Your task to perform on an android device: Open calendar and show me the second week of next month Image 0: 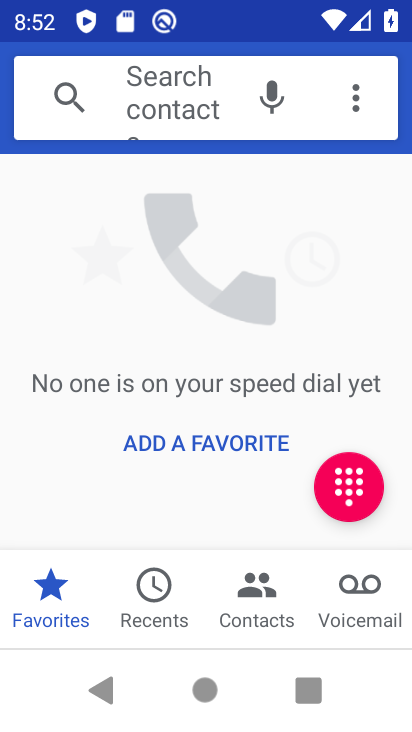
Step 0: press home button
Your task to perform on an android device: Open calendar and show me the second week of next month Image 1: 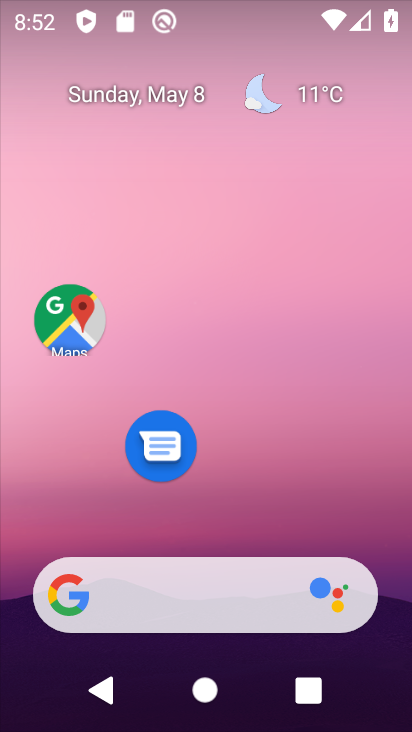
Step 1: drag from (330, 525) to (240, 6)
Your task to perform on an android device: Open calendar and show me the second week of next month Image 2: 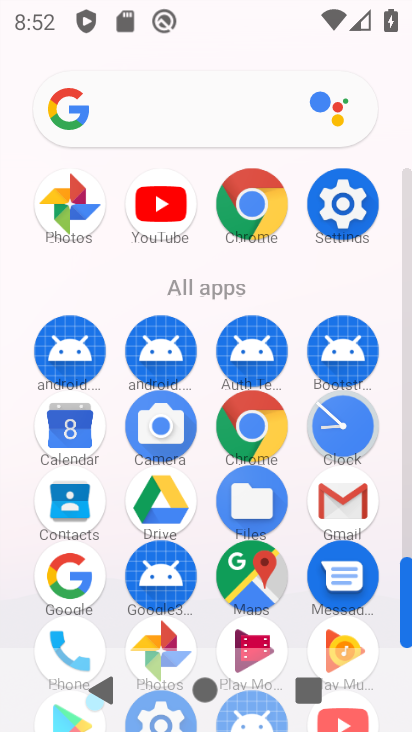
Step 2: click (75, 436)
Your task to perform on an android device: Open calendar and show me the second week of next month Image 3: 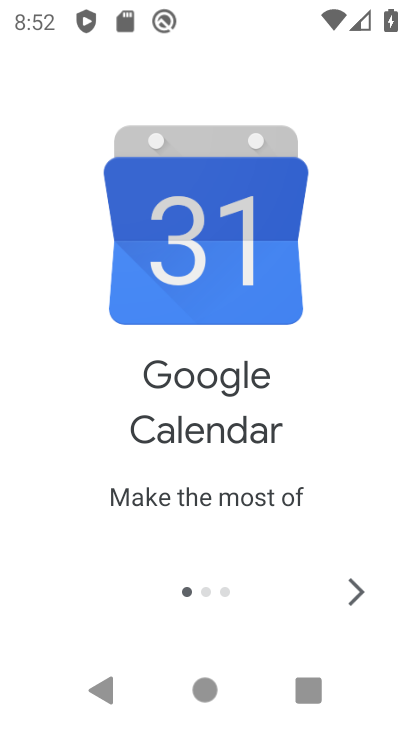
Step 3: click (365, 595)
Your task to perform on an android device: Open calendar and show me the second week of next month Image 4: 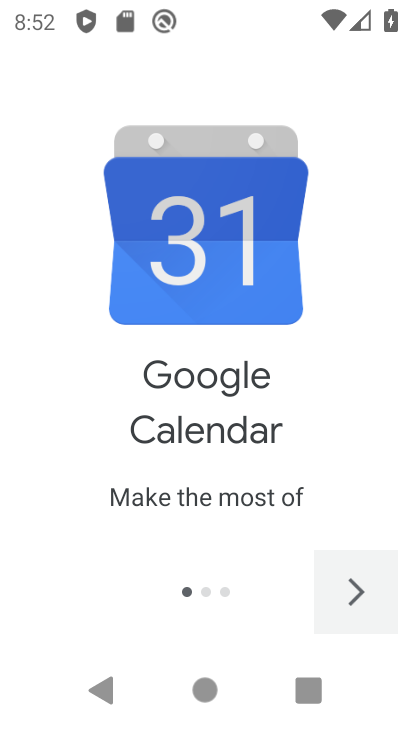
Step 4: click (361, 595)
Your task to perform on an android device: Open calendar and show me the second week of next month Image 5: 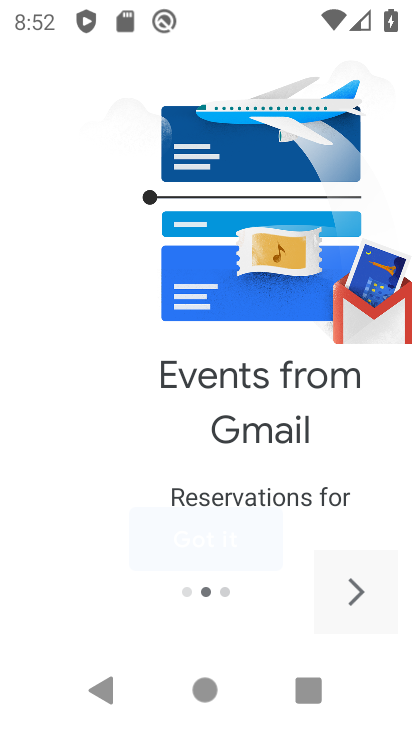
Step 5: click (361, 595)
Your task to perform on an android device: Open calendar and show me the second week of next month Image 6: 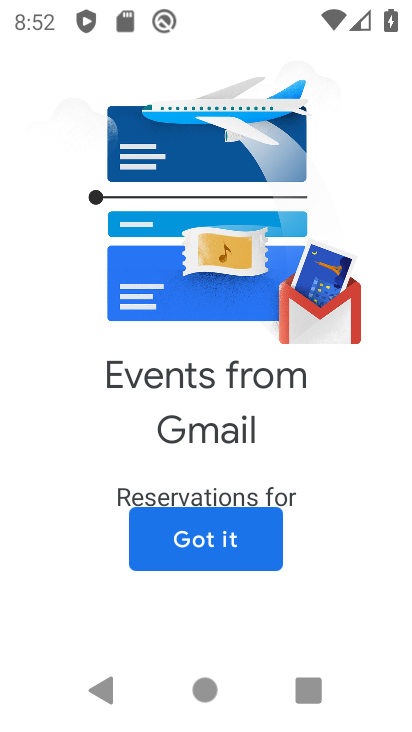
Step 6: click (361, 595)
Your task to perform on an android device: Open calendar and show me the second week of next month Image 7: 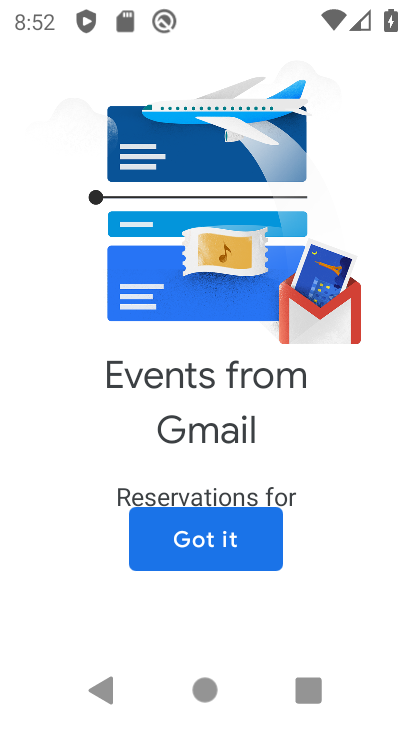
Step 7: click (229, 544)
Your task to perform on an android device: Open calendar and show me the second week of next month Image 8: 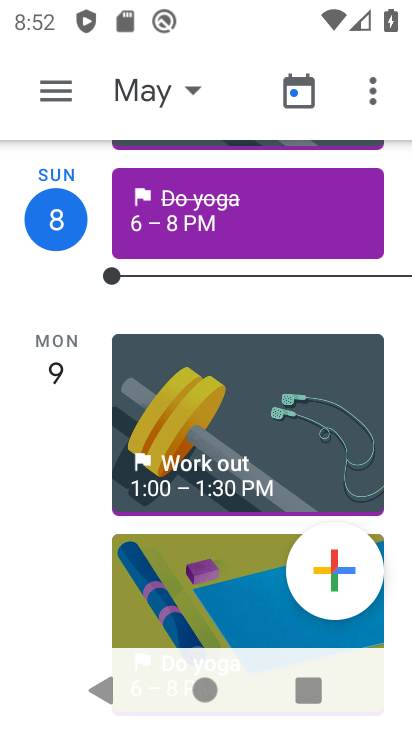
Step 8: click (185, 83)
Your task to perform on an android device: Open calendar and show me the second week of next month Image 9: 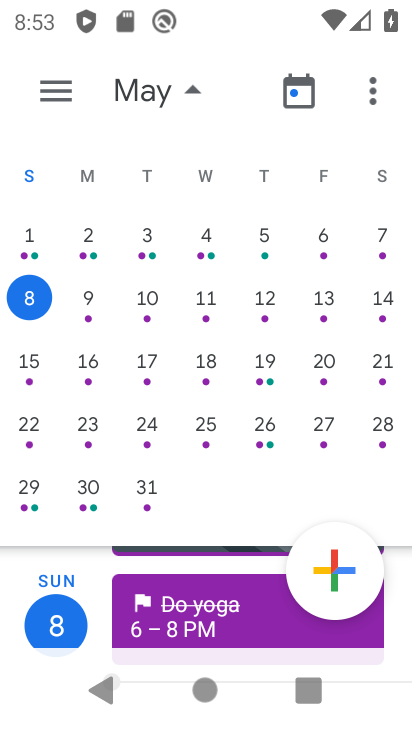
Step 9: drag from (339, 327) to (4, 292)
Your task to perform on an android device: Open calendar and show me the second week of next month Image 10: 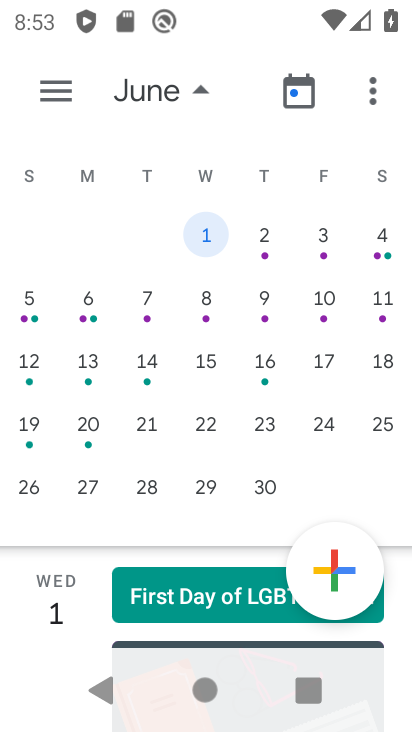
Step 10: click (221, 305)
Your task to perform on an android device: Open calendar and show me the second week of next month Image 11: 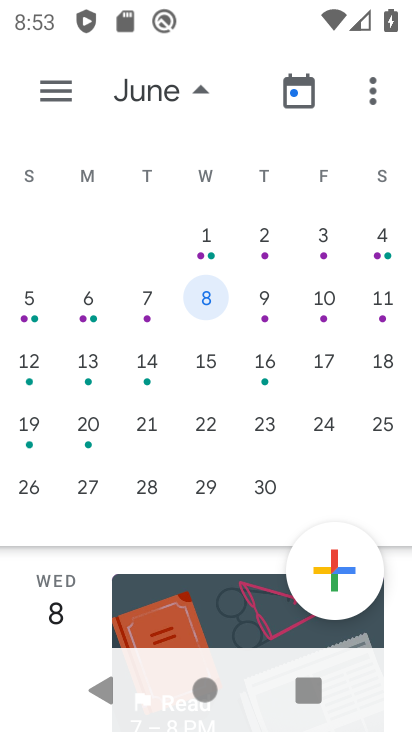
Step 11: task complete